Your task to perform on an android device: allow cookies in the chrome app Image 0: 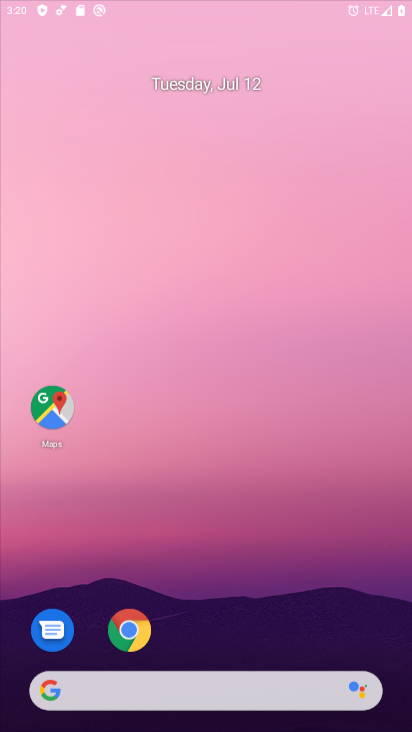
Step 0: click (405, 238)
Your task to perform on an android device: allow cookies in the chrome app Image 1: 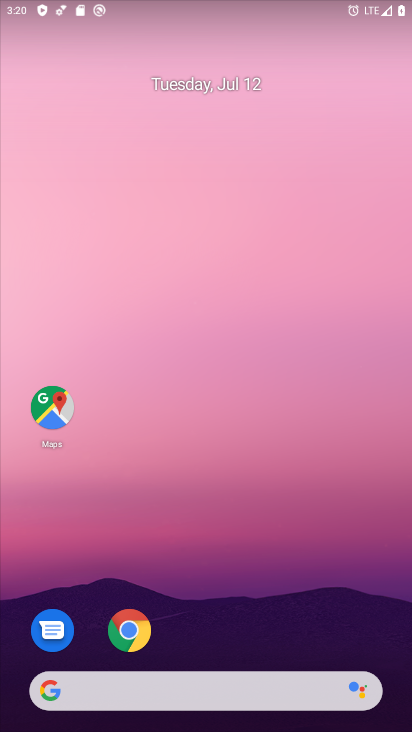
Step 1: drag from (259, 628) to (396, 262)
Your task to perform on an android device: allow cookies in the chrome app Image 2: 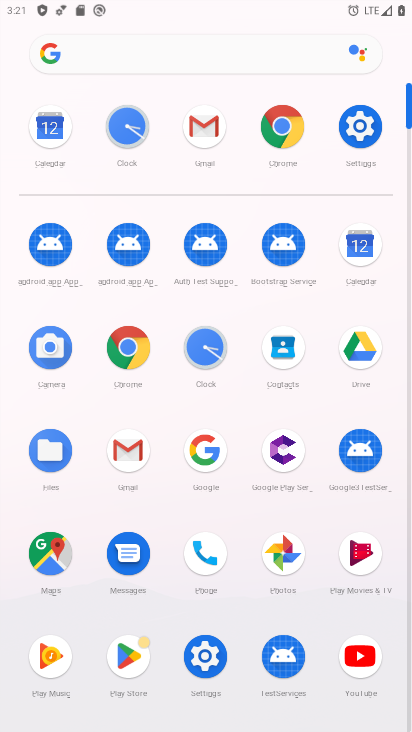
Step 2: click (130, 363)
Your task to perform on an android device: allow cookies in the chrome app Image 3: 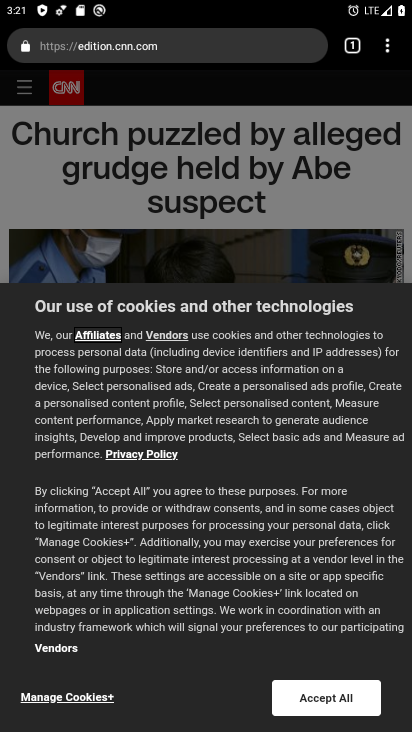
Step 3: click (395, 51)
Your task to perform on an android device: allow cookies in the chrome app Image 4: 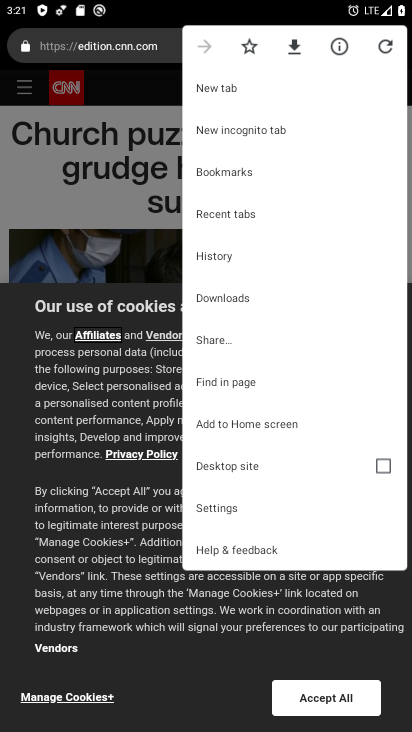
Step 4: click (219, 516)
Your task to perform on an android device: allow cookies in the chrome app Image 5: 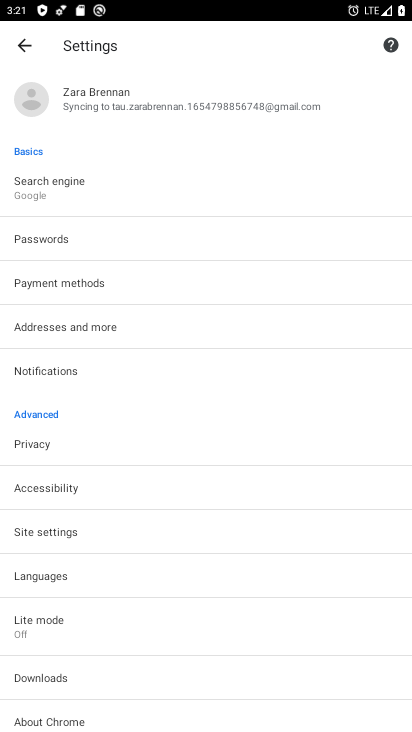
Step 5: click (80, 534)
Your task to perform on an android device: allow cookies in the chrome app Image 6: 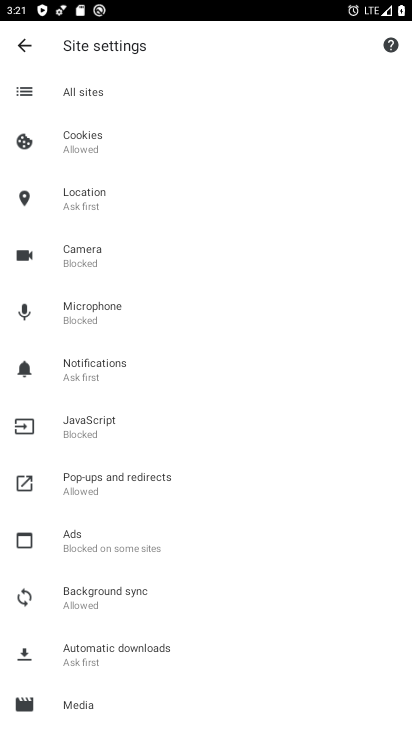
Step 6: click (82, 143)
Your task to perform on an android device: allow cookies in the chrome app Image 7: 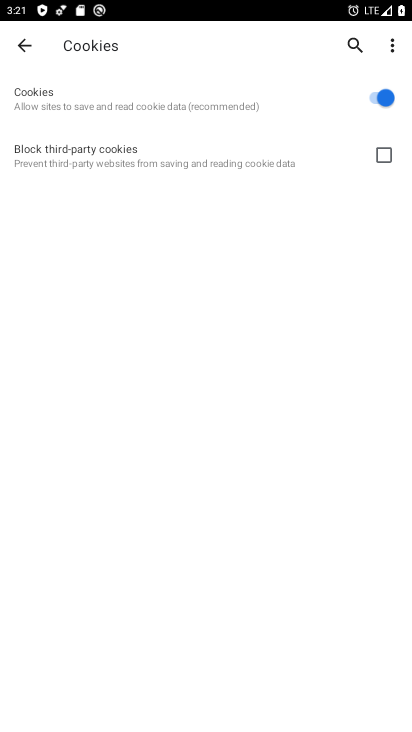
Step 7: task complete